Your task to perform on an android device: toggle notification dots Image 0: 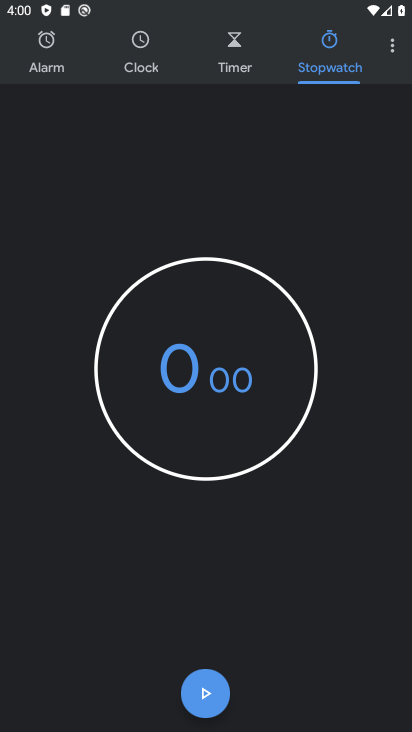
Step 0: press back button
Your task to perform on an android device: toggle notification dots Image 1: 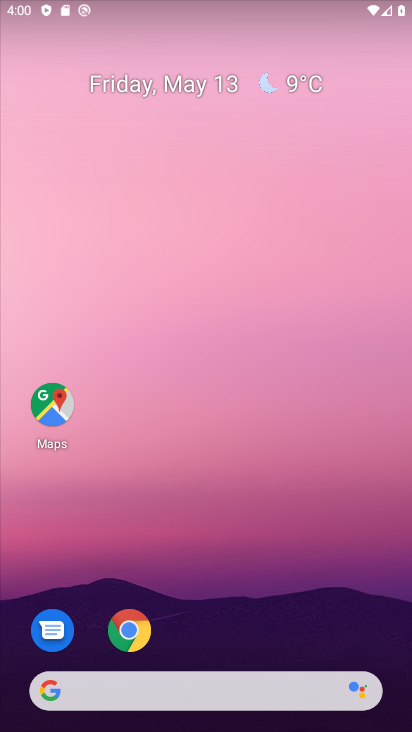
Step 1: drag from (260, 514) to (243, 2)
Your task to perform on an android device: toggle notification dots Image 2: 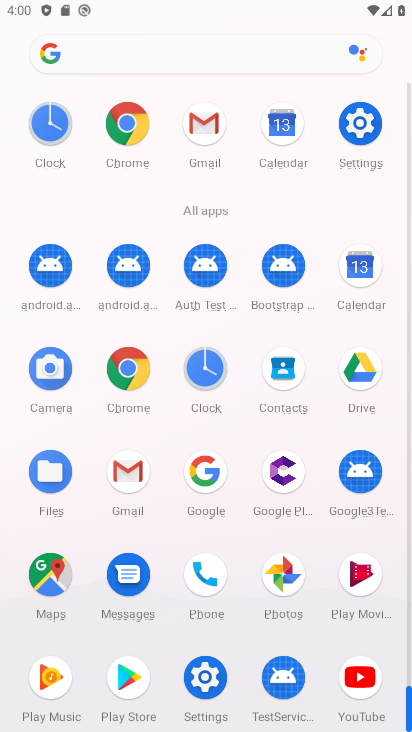
Step 2: drag from (19, 477) to (23, 207)
Your task to perform on an android device: toggle notification dots Image 3: 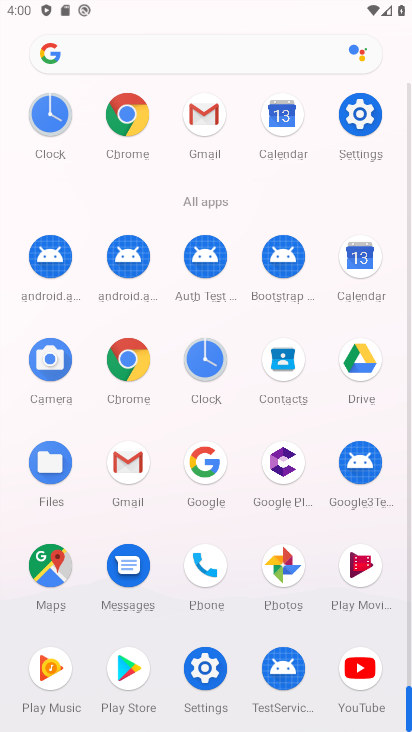
Step 3: click (205, 663)
Your task to perform on an android device: toggle notification dots Image 4: 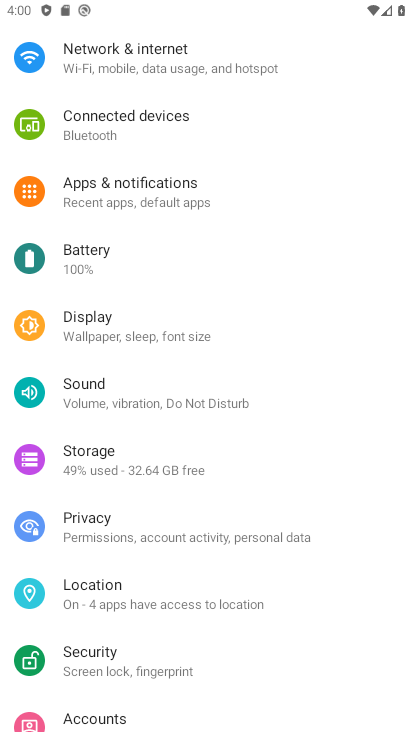
Step 4: click (129, 224)
Your task to perform on an android device: toggle notification dots Image 5: 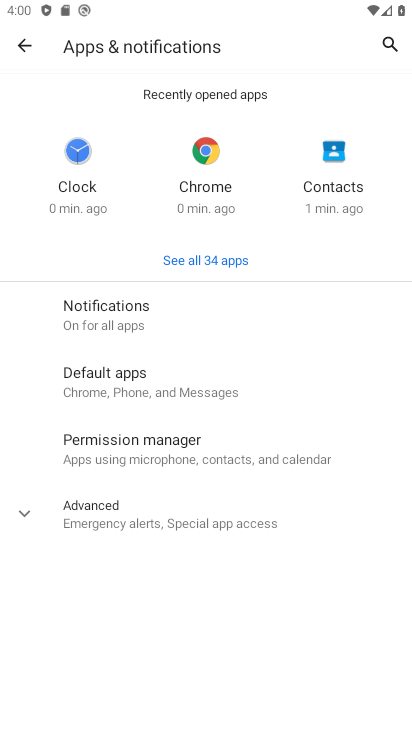
Step 5: click (43, 515)
Your task to perform on an android device: toggle notification dots Image 6: 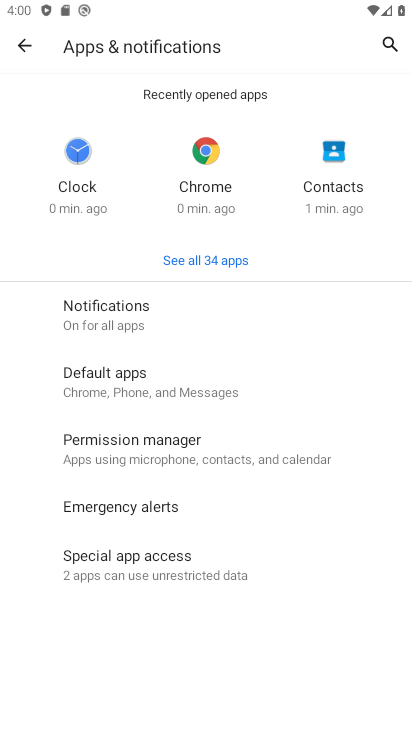
Step 6: click (156, 301)
Your task to perform on an android device: toggle notification dots Image 7: 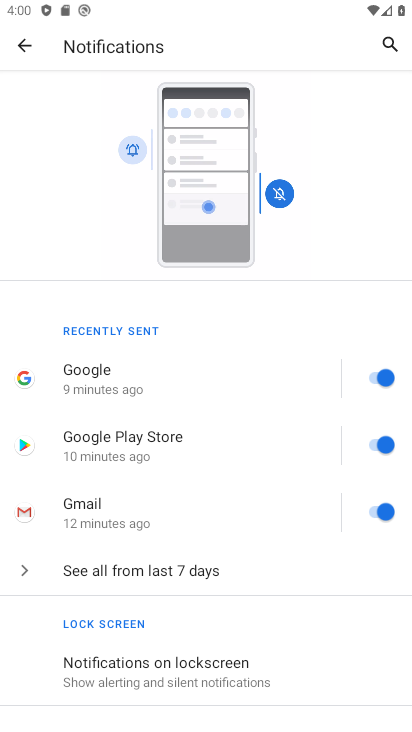
Step 7: drag from (259, 592) to (240, 203)
Your task to perform on an android device: toggle notification dots Image 8: 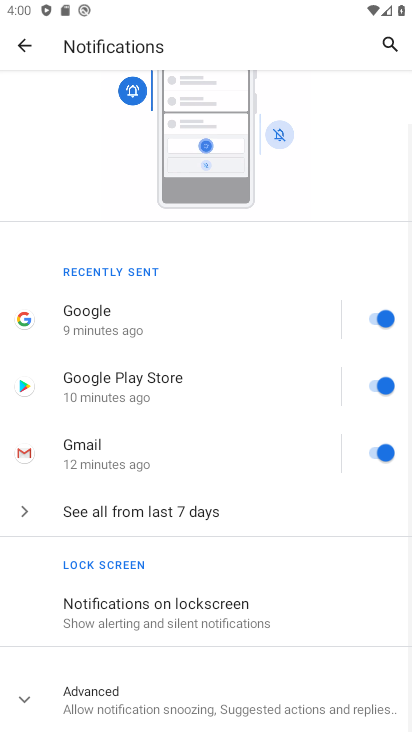
Step 8: click (135, 700)
Your task to perform on an android device: toggle notification dots Image 9: 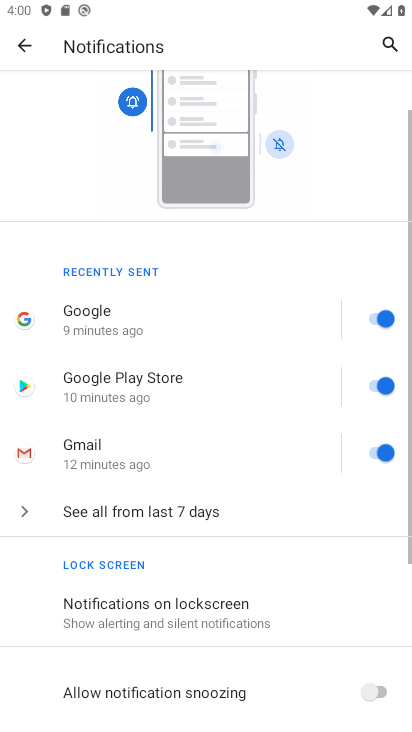
Step 9: drag from (221, 627) to (224, 220)
Your task to perform on an android device: toggle notification dots Image 10: 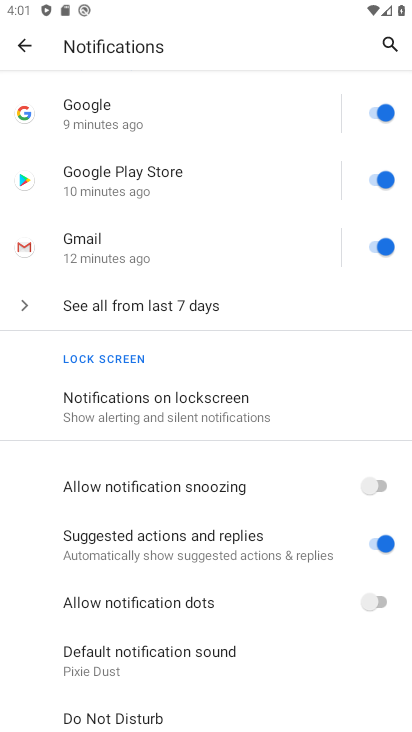
Step 10: click (374, 595)
Your task to perform on an android device: toggle notification dots Image 11: 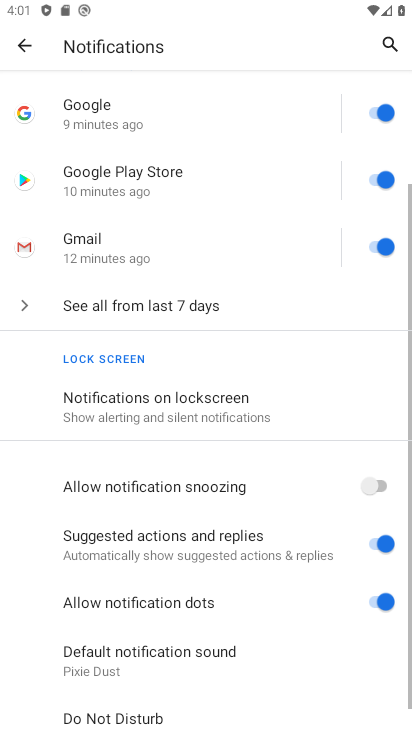
Step 11: task complete